Your task to perform on an android device: Open calendar and show me the third week of next month Image 0: 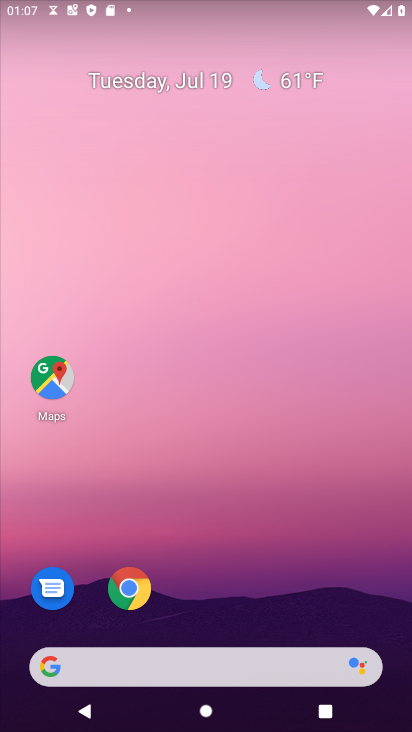
Step 0: press home button
Your task to perform on an android device: Open calendar and show me the third week of next month Image 1: 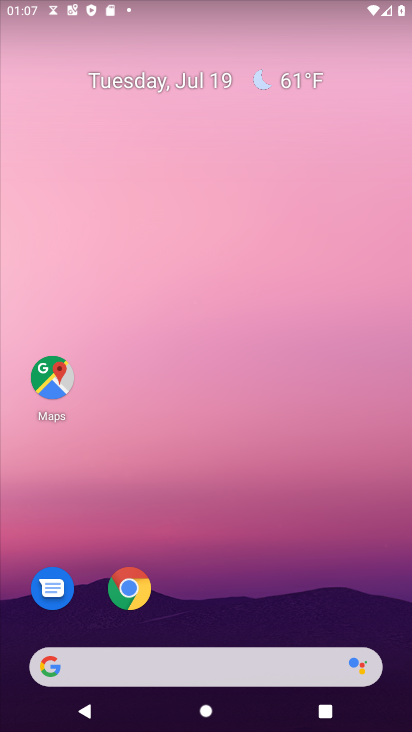
Step 1: drag from (277, 655) to (276, 120)
Your task to perform on an android device: Open calendar and show me the third week of next month Image 2: 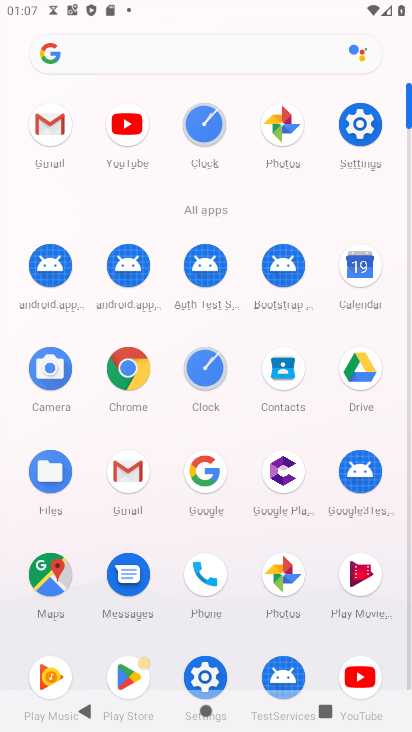
Step 2: click (347, 262)
Your task to perform on an android device: Open calendar and show me the third week of next month Image 3: 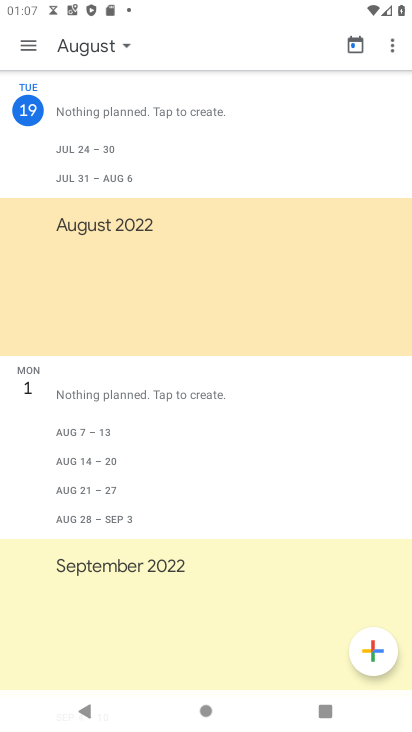
Step 3: click (19, 40)
Your task to perform on an android device: Open calendar and show me the third week of next month Image 4: 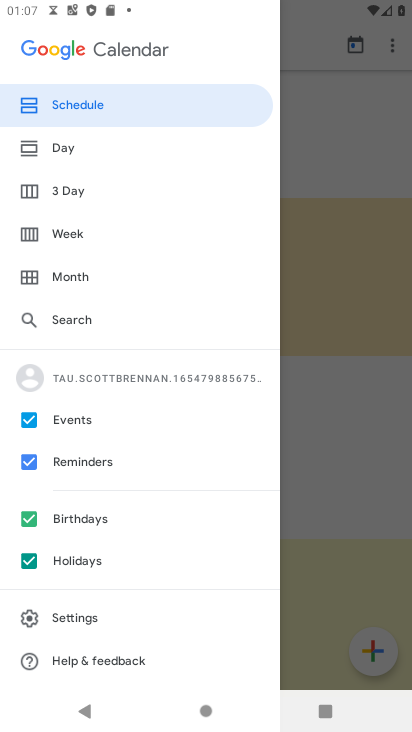
Step 4: click (75, 272)
Your task to perform on an android device: Open calendar and show me the third week of next month Image 5: 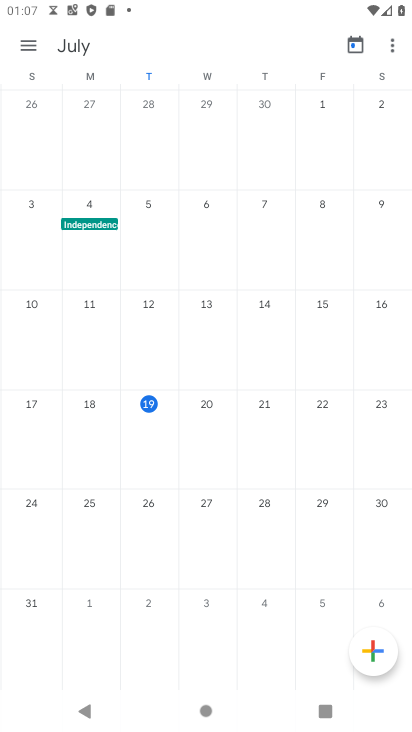
Step 5: drag from (321, 275) to (3, 312)
Your task to perform on an android device: Open calendar and show me the third week of next month Image 6: 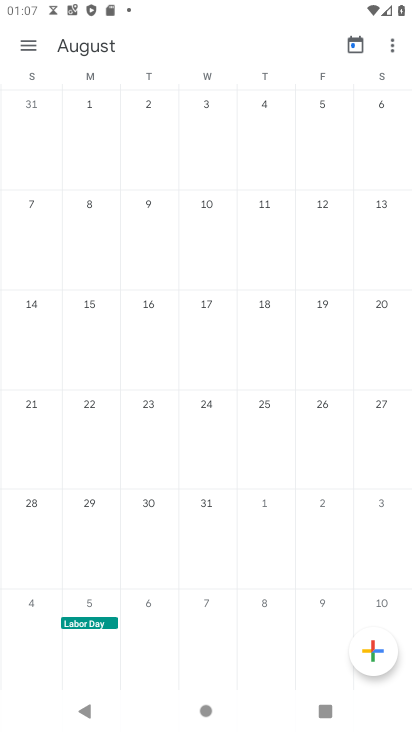
Step 6: click (91, 341)
Your task to perform on an android device: Open calendar and show me the third week of next month Image 7: 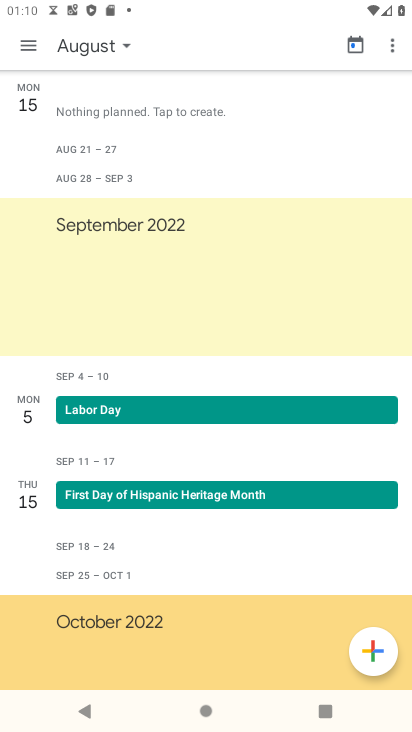
Step 7: task complete